Your task to perform on an android device: change the clock display to digital Image 0: 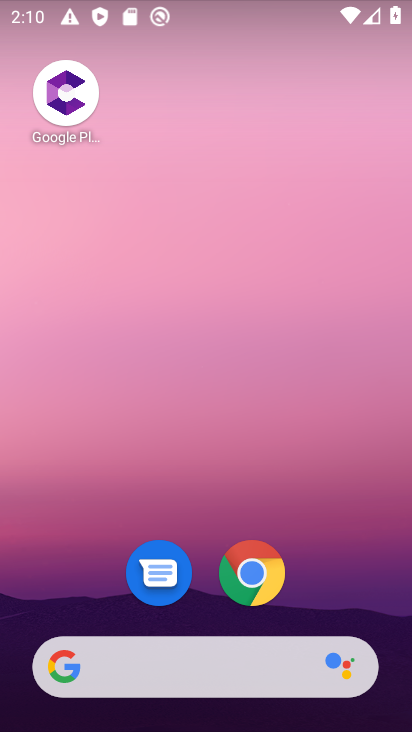
Step 0: drag from (202, 496) to (244, 1)
Your task to perform on an android device: change the clock display to digital Image 1: 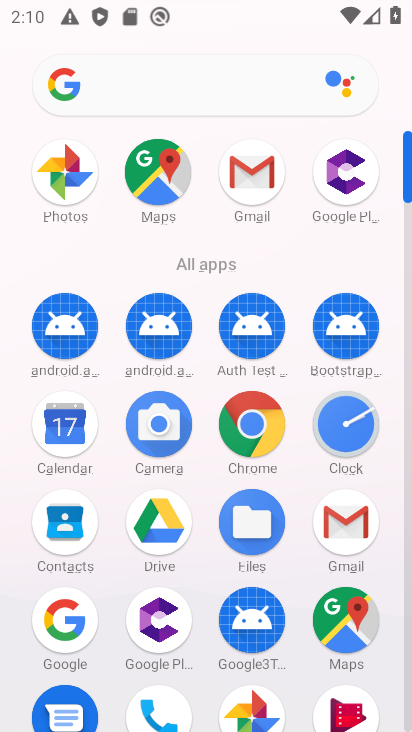
Step 1: click (338, 427)
Your task to perform on an android device: change the clock display to digital Image 2: 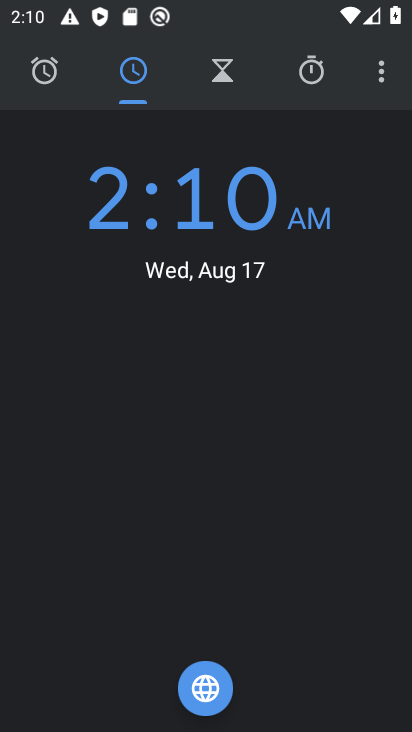
Step 2: task complete